Your task to perform on an android device: Open Chrome and go to settings Image 0: 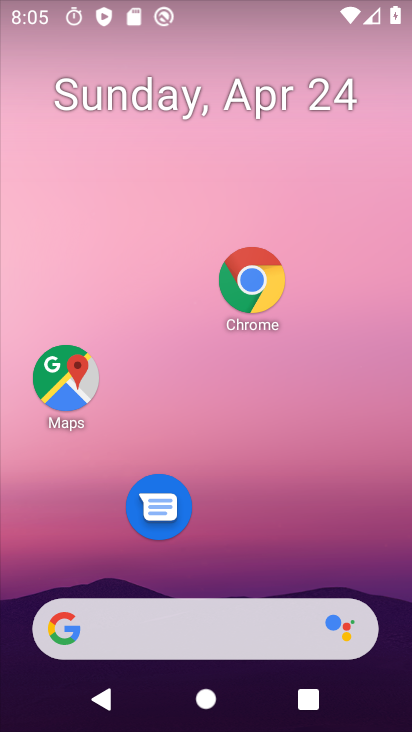
Step 0: drag from (277, 698) to (122, 32)
Your task to perform on an android device: Open Chrome and go to settings Image 1: 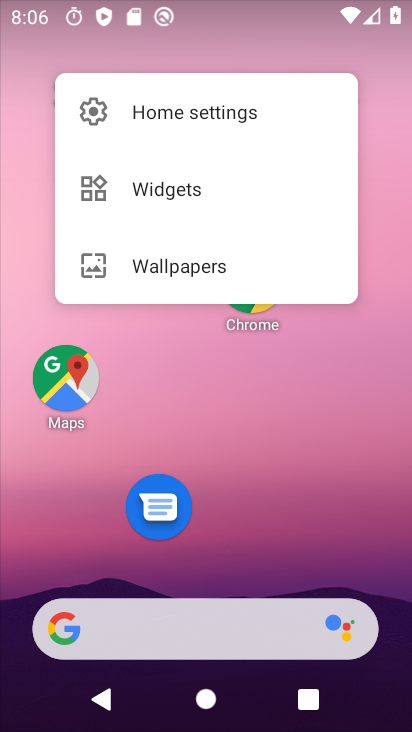
Step 1: drag from (240, 376) to (121, 15)
Your task to perform on an android device: Open Chrome and go to settings Image 2: 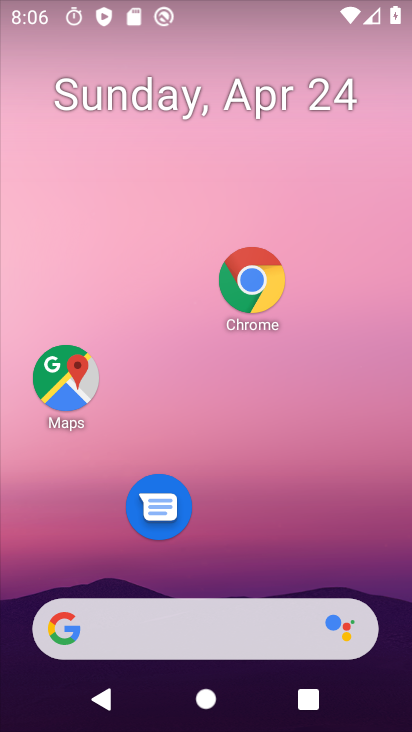
Step 2: click (253, 47)
Your task to perform on an android device: Open Chrome and go to settings Image 3: 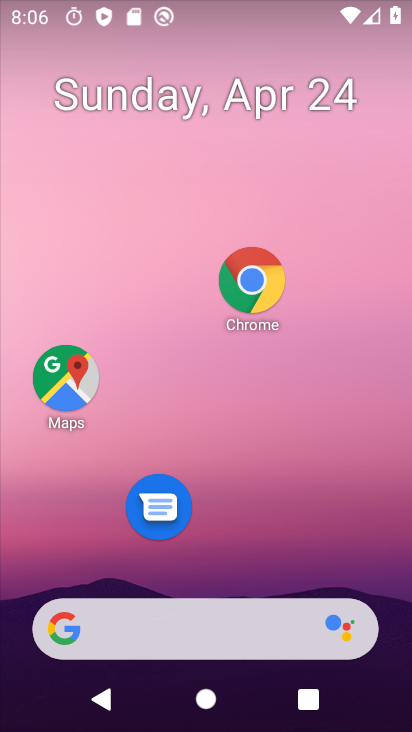
Step 3: drag from (119, 25) to (186, 32)
Your task to perform on an android device: Open Chrome and go to settings Image 4: 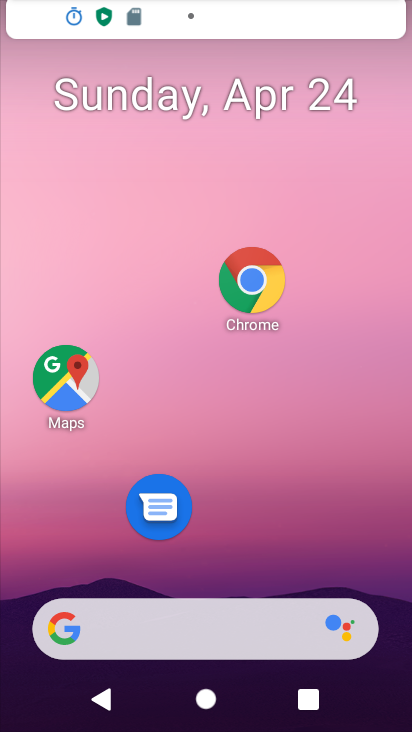
Step 4: drag from (247, 165) to (175, 155)
Your task to perform on an android device: Open Chrome and go to settings Image 5: 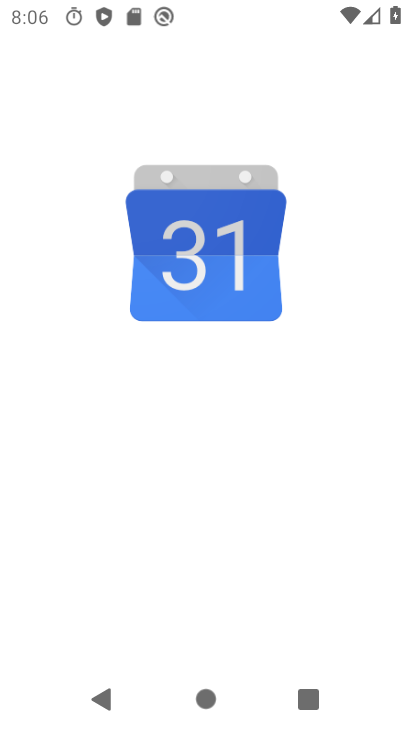
Step 5: click (172, 8)
Your task to perform on an android device: Open Chrome and go to settings Image 6: 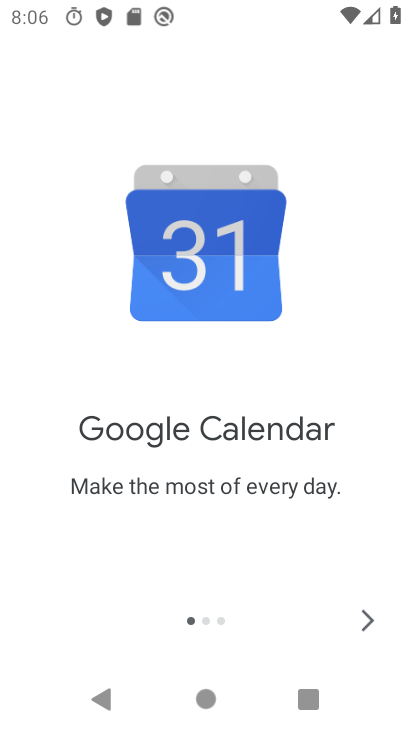
Step 6: press home button
Your task to perform on an android device: Open Chrome and go to settings Image 7: 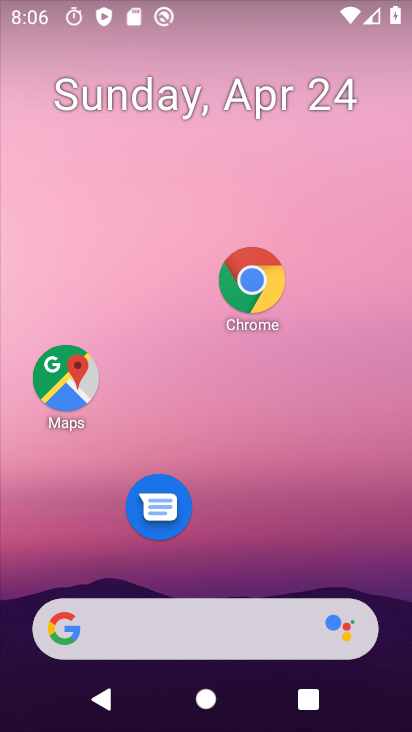
Step 7: drag from (284, 695) to (163, 35)
Your task to perform on an android device: Open Chrome and go to settings Image 8: 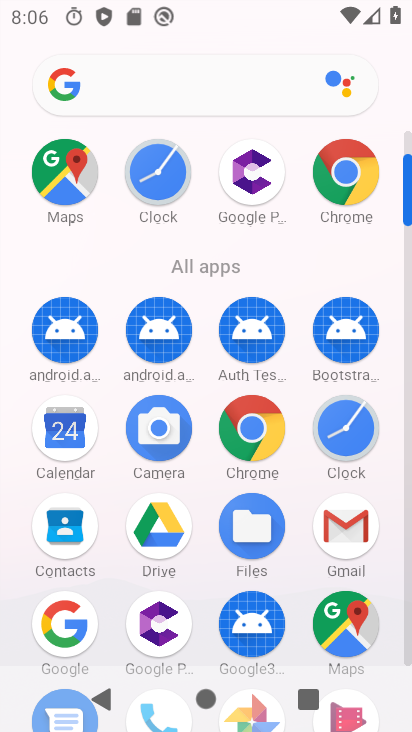
Step 8: click (359, 180)
Your task to perform on an android device: Open Chrome and go to settings Image 9: 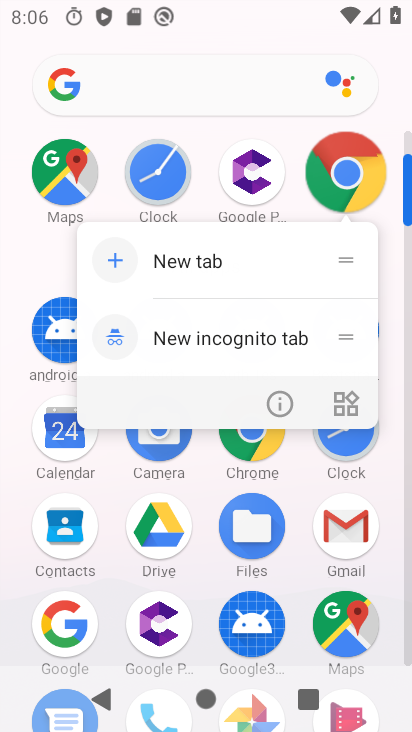
Step 9: drag from (360, 173) to (328, 245)
Your task to perform on an android device: Open Chrome and go to settings Image 10: 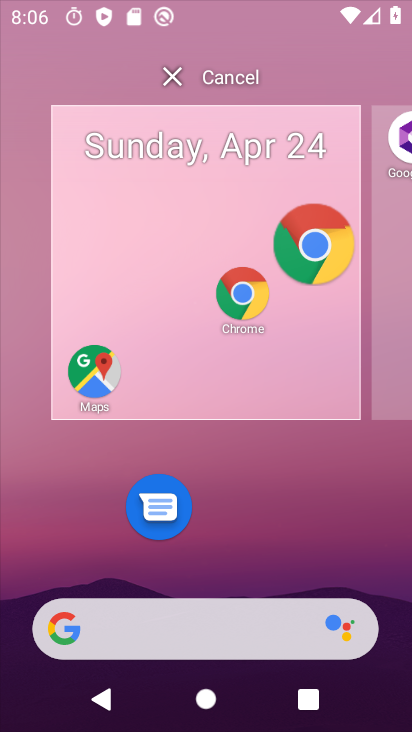
Step 10: click (342, 172)
Your task to perform on an android device: Open Chrome and go to settings Image 11: 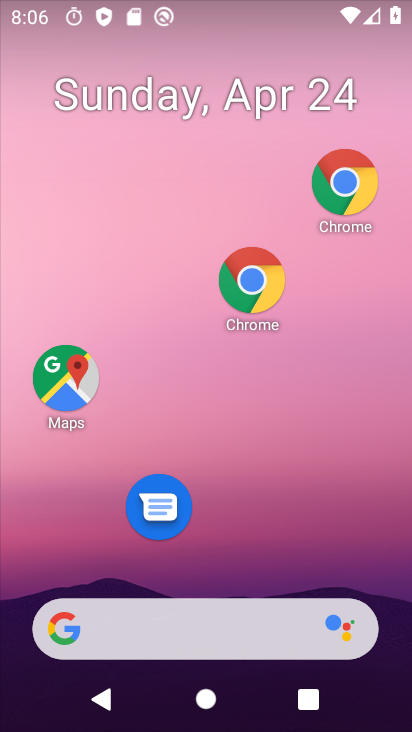
Step 11: click (343, 158)
Your task to perform on an android device: Open Chrome and go to settings Image 12: 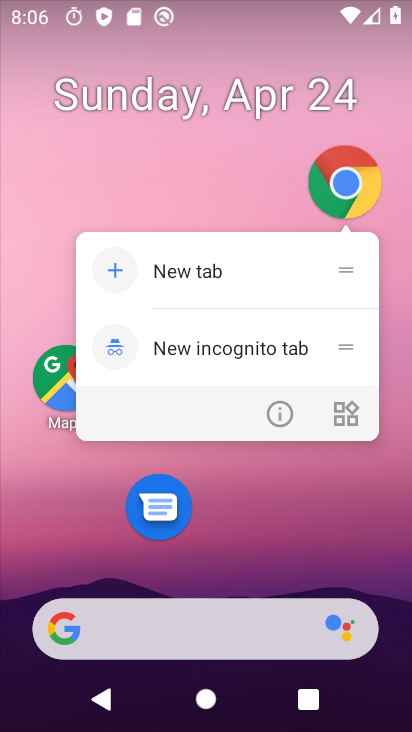
Step 12: click (346, 161)
Your task to perform on an android device: Open Chrome and go to settings Image 13: 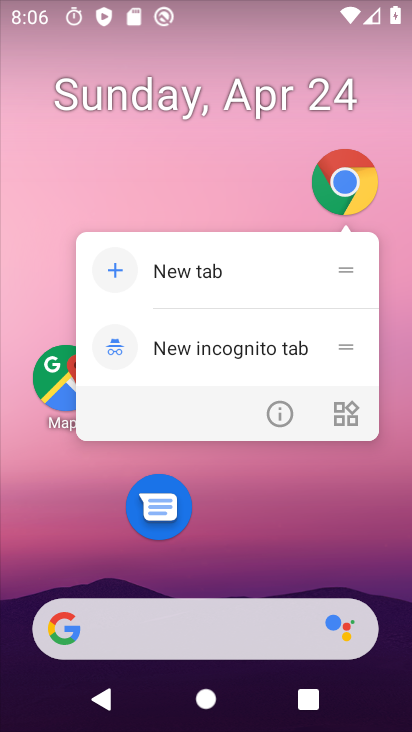
Step 13: click (347, 167)
Your task to perform on an android device: Open Chrome and go to settings Image 14: 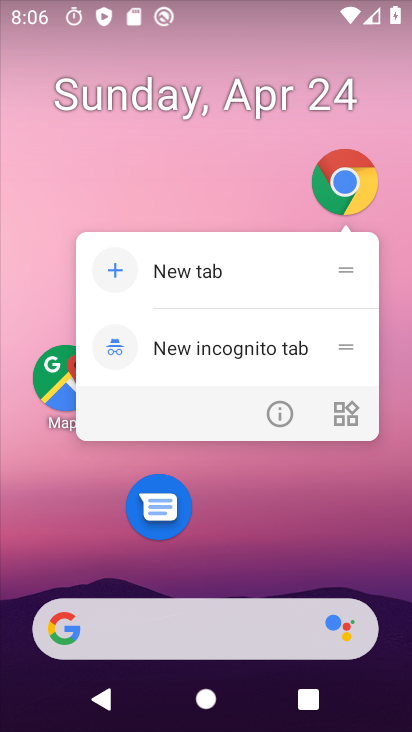
Step 14: click (343, 183)
Your task to perform on an android device: Open Chrome and go to settings Image 15: 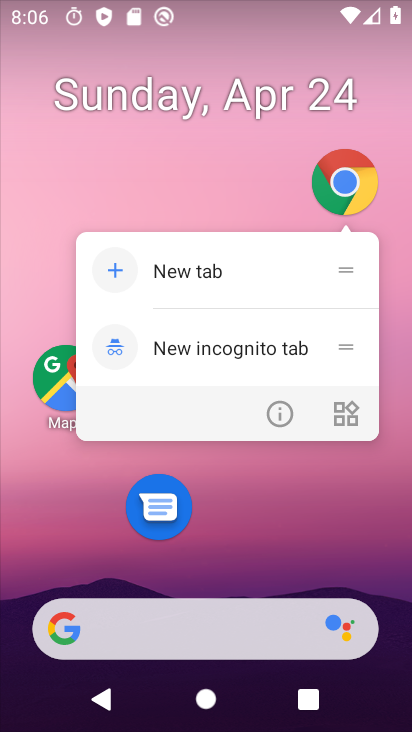
Step 15: click (326, 190)
Your task to perform on an android device: Open Chrome and go to settings Image 16: 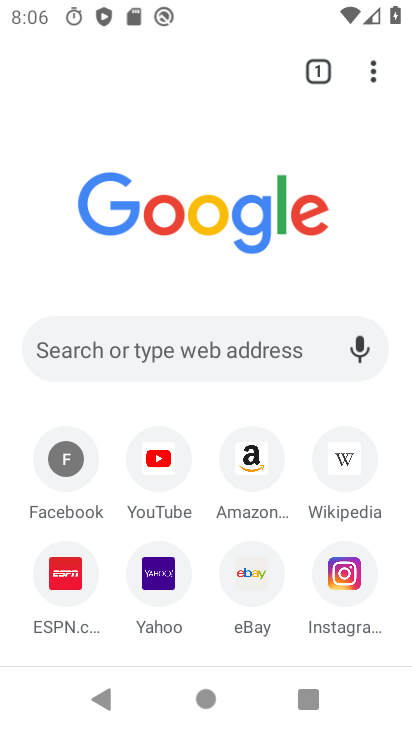
Step 16: drag from (372, 67) to (115, 497)
Your task to perform on an android device: Open Chrome and go to settings Image 17: 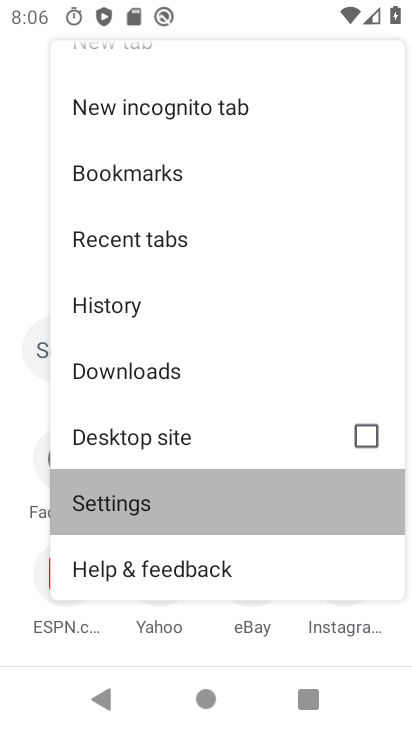
Step 17: click (115, 497)
Your task to perform on an android device: Open Chrome and go to settings Image 18: 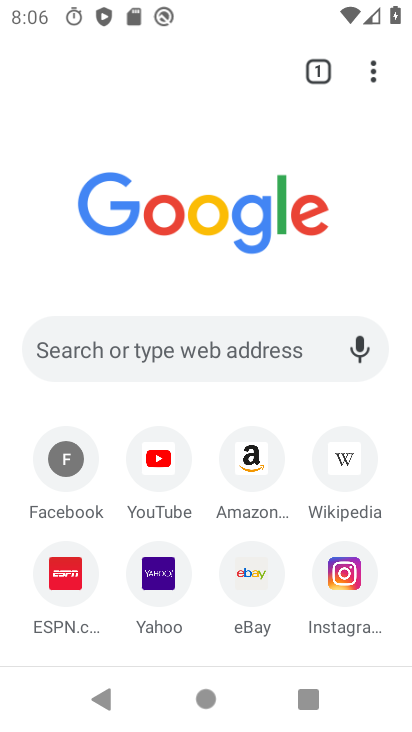
Step 18: click (115, 497)
Your task to perform on an android device: Open Chrome and go to settings Image 19: 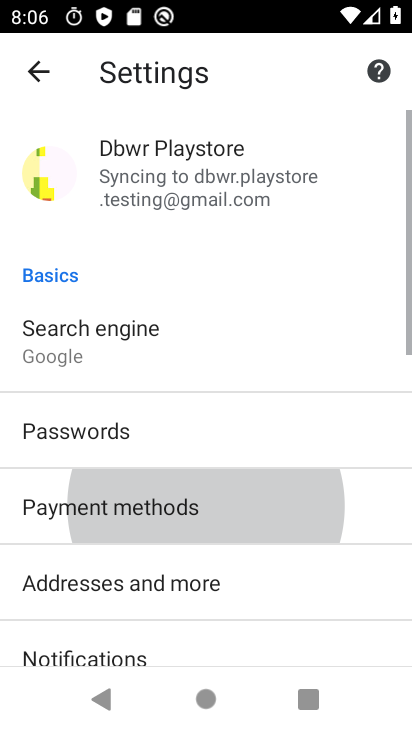
Step 19: click (115, 504)
Your task to perform on an android device: Open Chrome and go to settings Image 20: 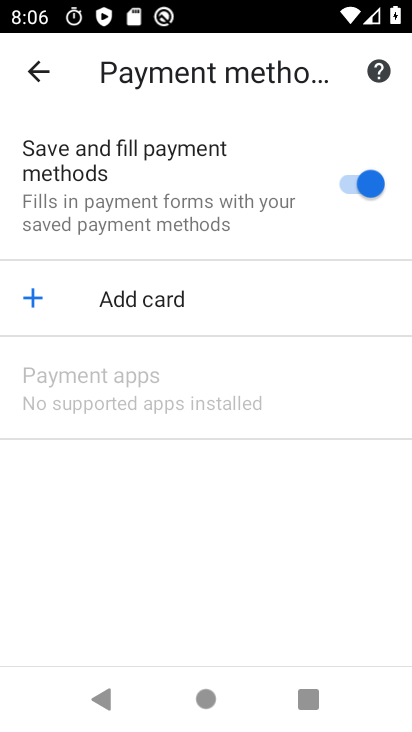
Step 20: click (41, 82)
Your task to perform on an android device: Open Chrome and go to settings Image 21: 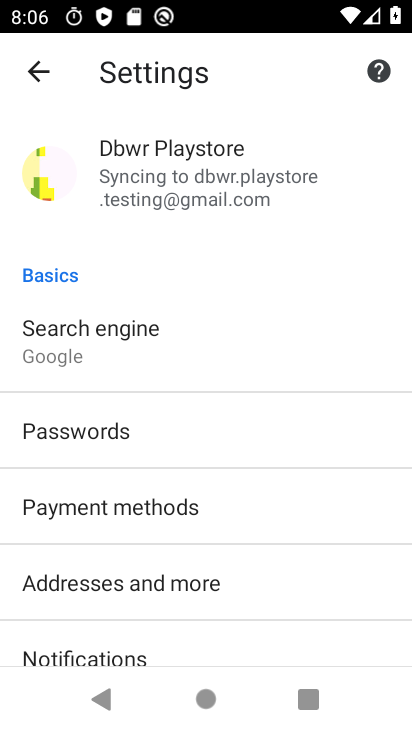
Step 21: task complete